Your task to perform on an android device: change notification settings in the gmail app Image 0: 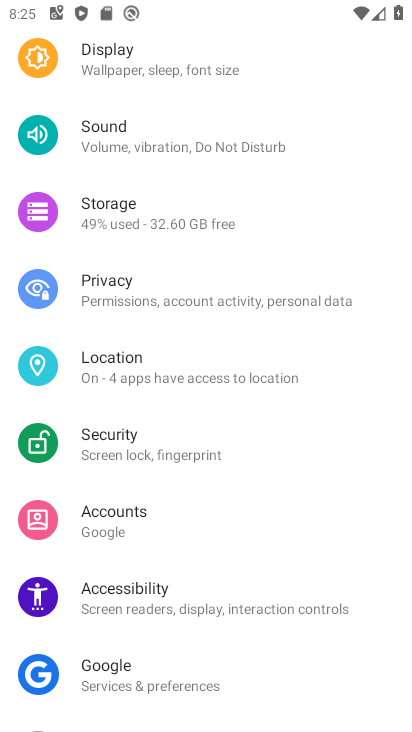
Step 0: press home button
Your task to perform on an android device: change notification settings in the gmail app Image 1: 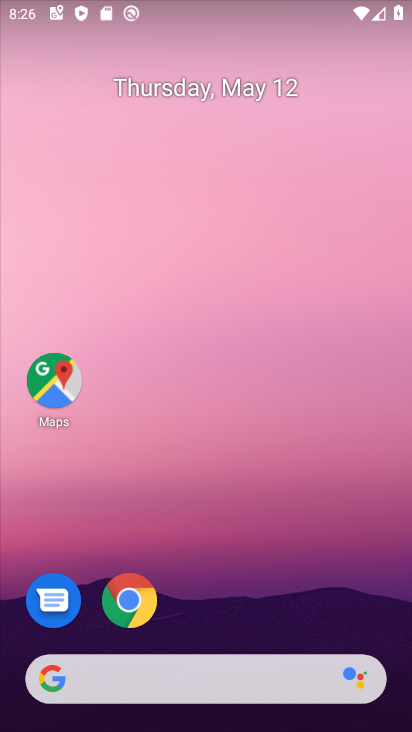
Step 1: drag from (197, 606) to (207, 338)
Your task to perform on an android device: change notification settings in the gmail app Image 2: 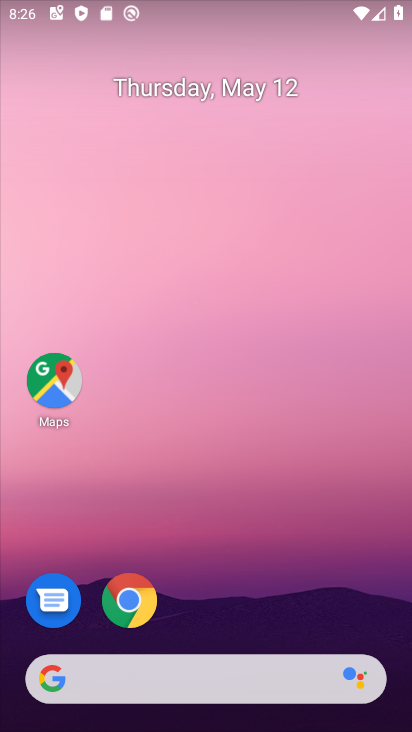
Step 2: drag from (237, 622) to (281, 125)
Your task to perform on an android device: change notification settings in the gmail app Image 3: 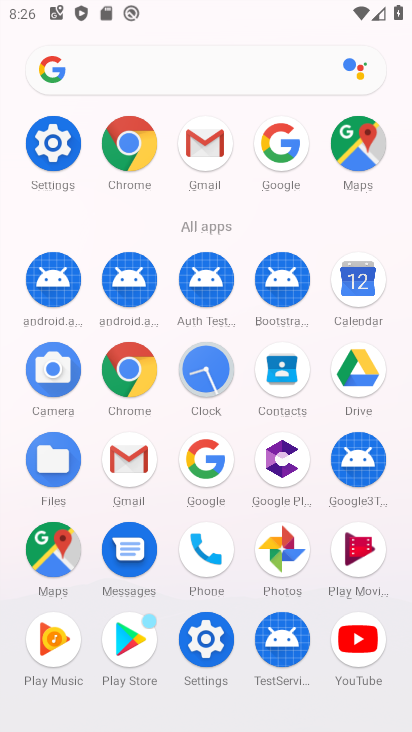
Step 3: click (209, 165)
Your task to perform on an android device: change notification settings in the gmail app Image 4: 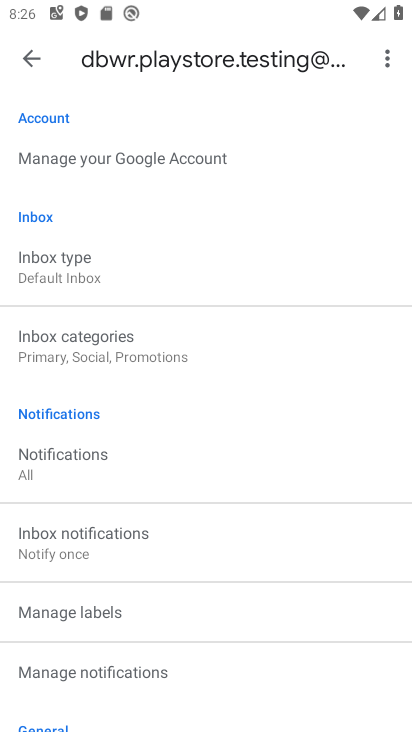
Step 4: click (91, 495)
Your task to perform on an android device: change notification settings in the gmail app Image 5: 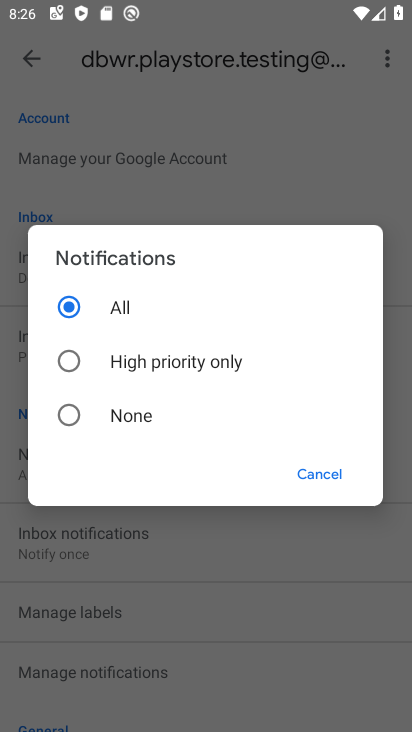
Step 5: click (71, 428)
Your task to perform on an android device: change notification settings in the gmail app Image 6: 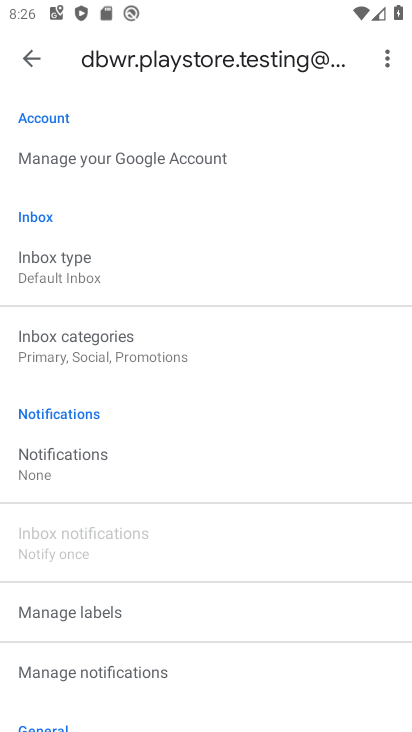
Step 6: task complete